Your task to perform on an android device: Open Wikipedia Image 0: 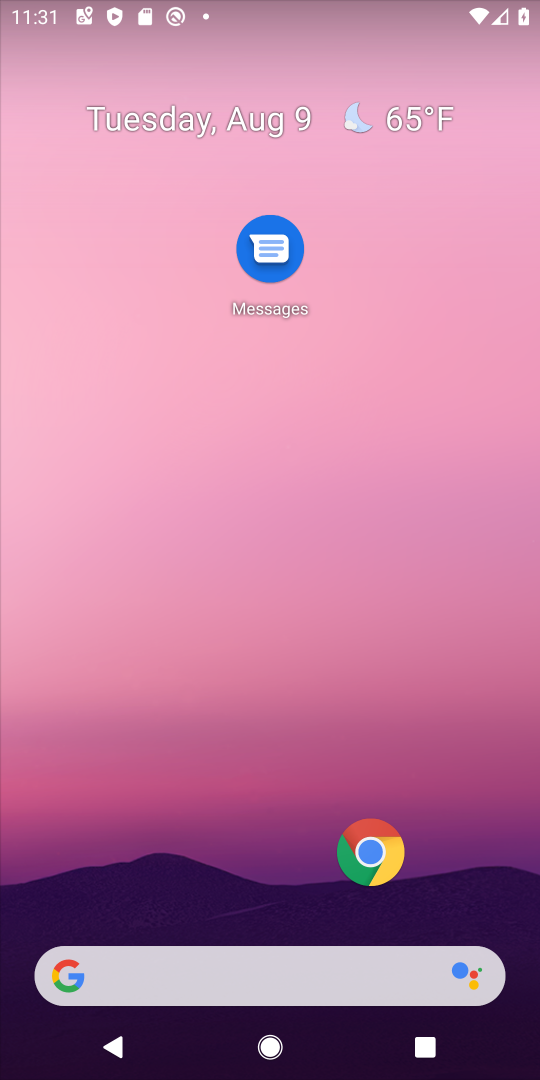
Step 0: click (361, 851)
Your task to perform on an android device: Open Wikipedia Image 1: 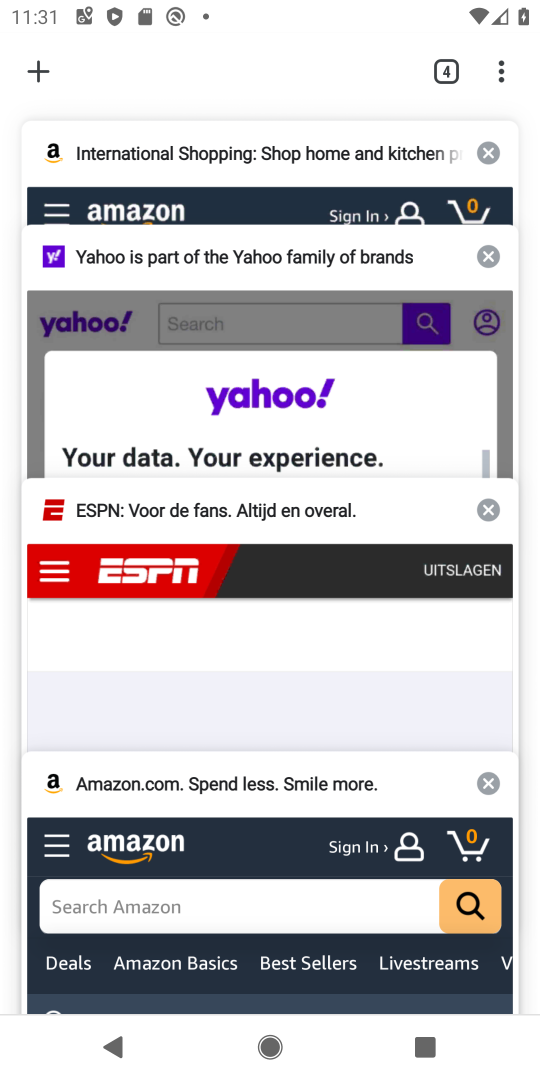
Step 1: click (49, 73)
Your task to perform on an android device: Open Wikipedia Image 2: 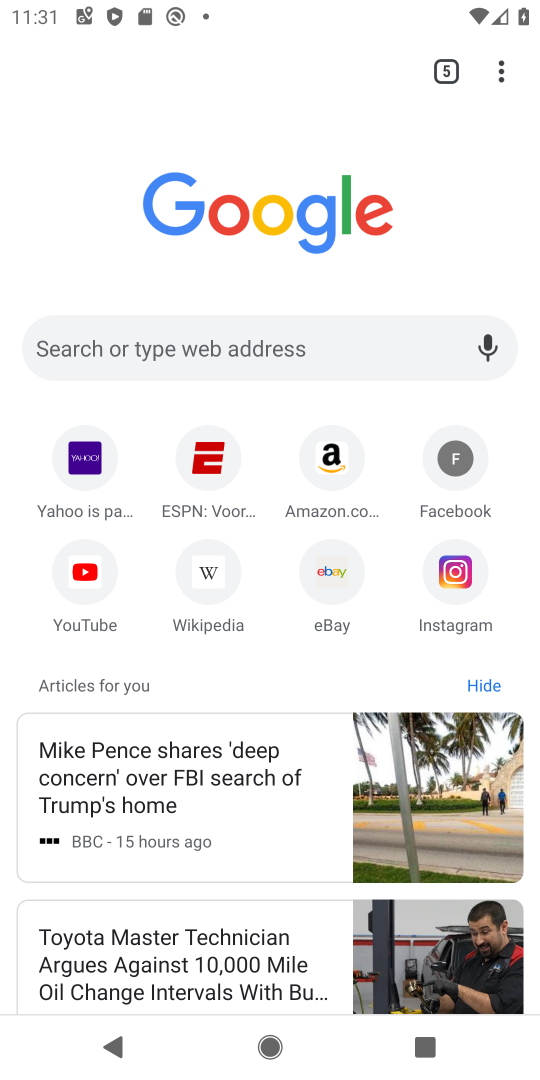
Step 2: click (199, 574)
Your task to perform on an android device: Open Wikipedia Image 3: 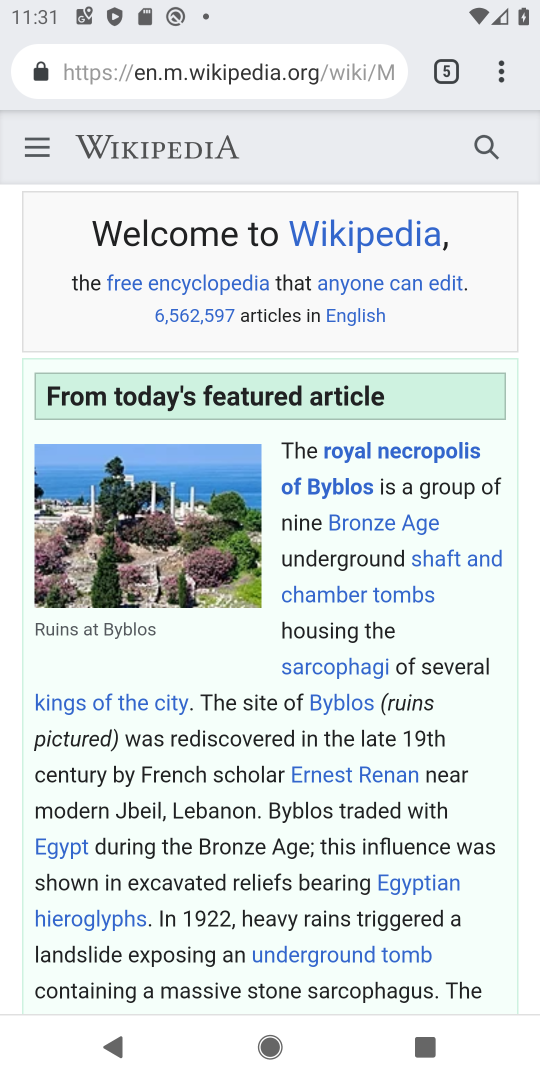
Step 3: task complete